Your task to perform on an android device: Open Google Chrome and click the shortcut for Amazon.com Image 0: 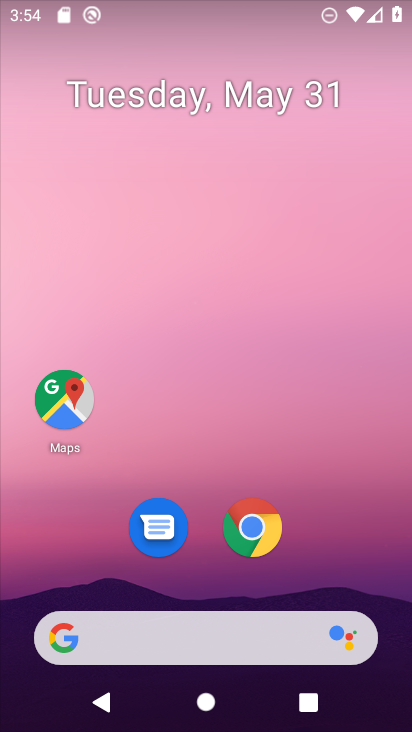
Step 0: click (274, 519)
Your task to perform on an android device: Open Google Chrome and click the shortcut for Amazon.com Image 1: 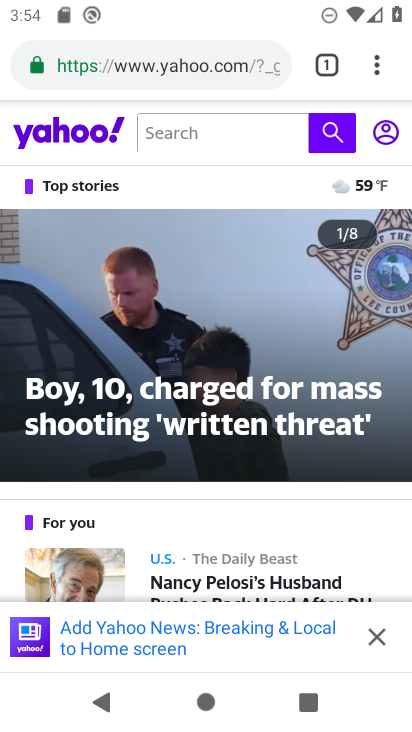
Step 1: click (336, 70)
Your task to perform on an android device: Open Google Chrome and click the shortcut for Amazon.com Image 2: 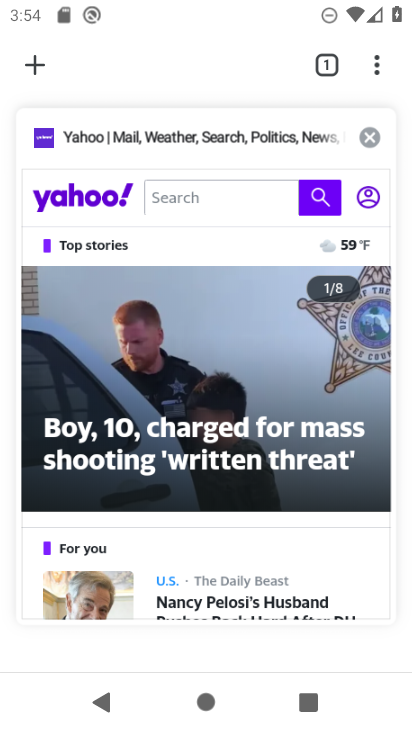
Step 2: click (29, 62)
Your task to perform on an android device: Open Google Chrome and click the shortcut for Amazon.com Image 3: 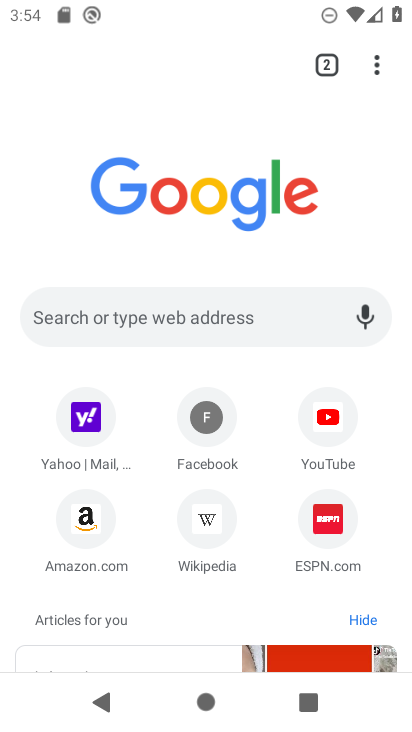
Step 3: click (377, 72)
Your task to perform on an android device: Open Google Chrome and click the shortcut for Amazon.com Image 4: 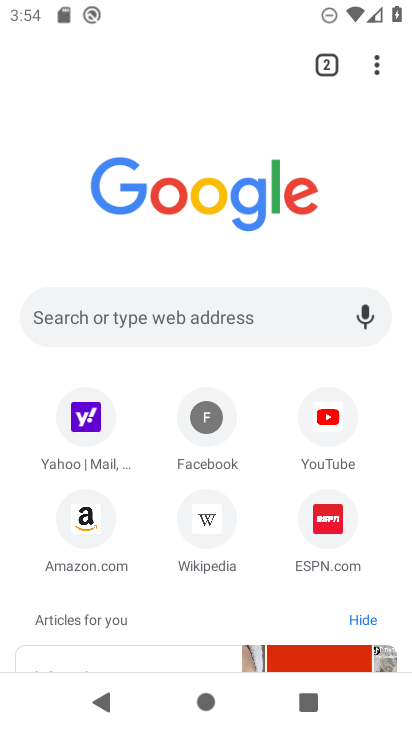
Step 4: click (101, 531)
Your task to perform on an android device: Open Google Chrome and click the shortcut for Amazon.com Image 5: 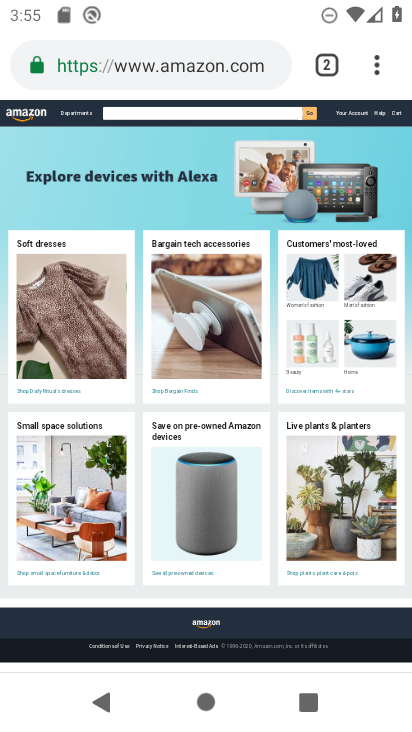
Step 5: task complete